Your task to perform on an android device: create a new album in the google photos Image 0: 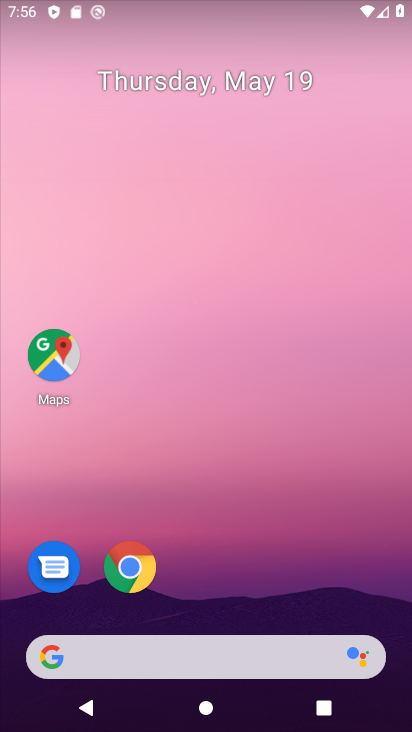
Step 0: drag from (226, 533) to (207, 141)
Your task to perform on an android device: create a new album in the google photos Image 1: 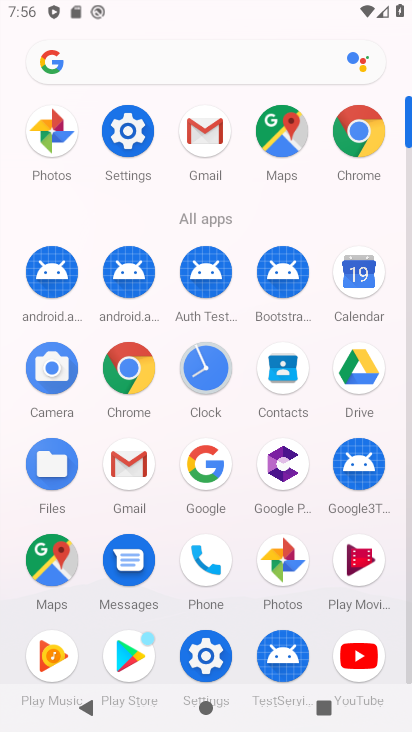
Step 1: click (59, 108)
Your task to perform on an android device: create a new album in the google photos Image 2: 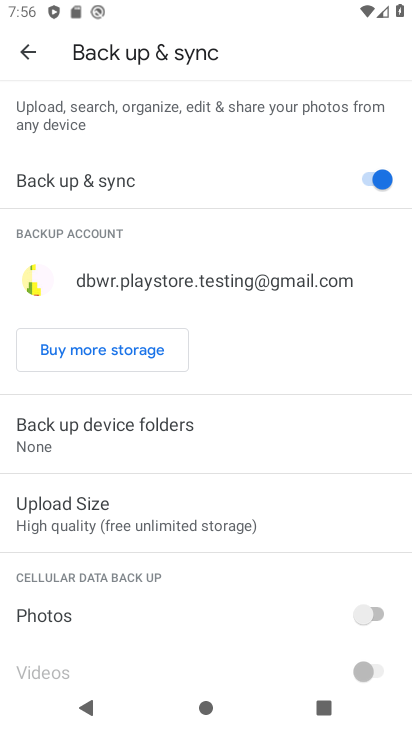
Step 2: click (34, 58)
Your task to perform on an android device: create a new album in the google photos Image 3: 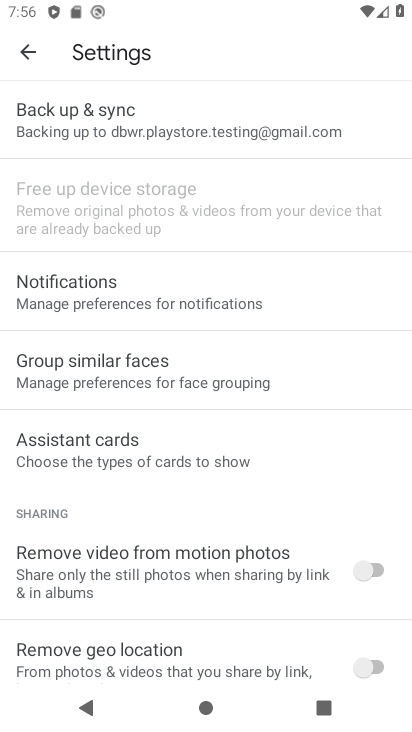
Step 3: click (34, 58)
Your task to perform on an android device: create a new album in the google photos Image 4: 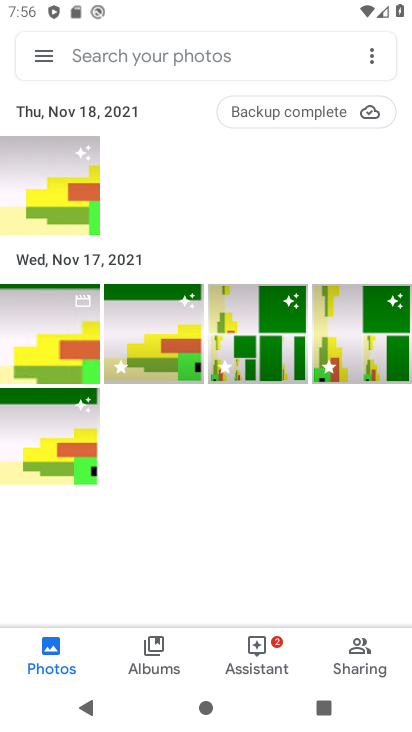
Step 4: click (27, 54)
Your task to perform on an android device: create a new album in the google photos Image 5: 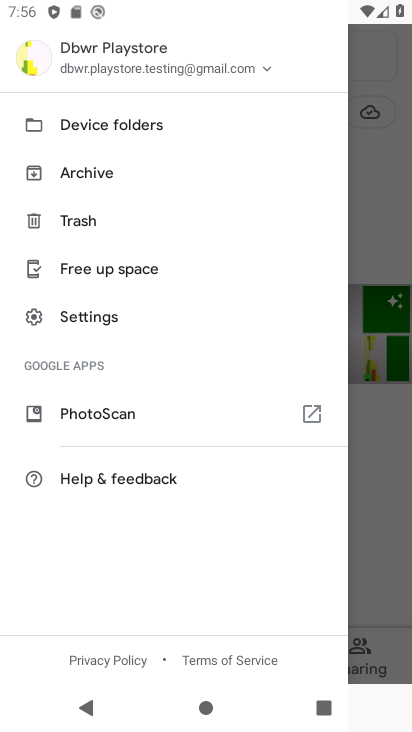
Step 5: click (387, 182)
Your task to perform on an android device: create a new album in the google photos Image 6: 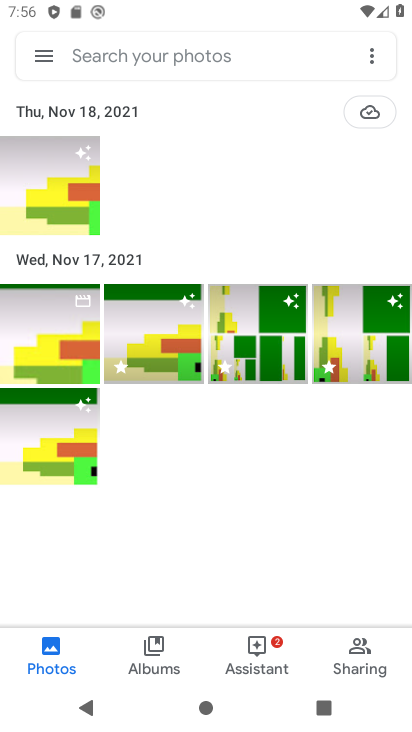
Step 6: click (387, 182)
Your task to perform on an android device: create a new album in the google photos Image 7: 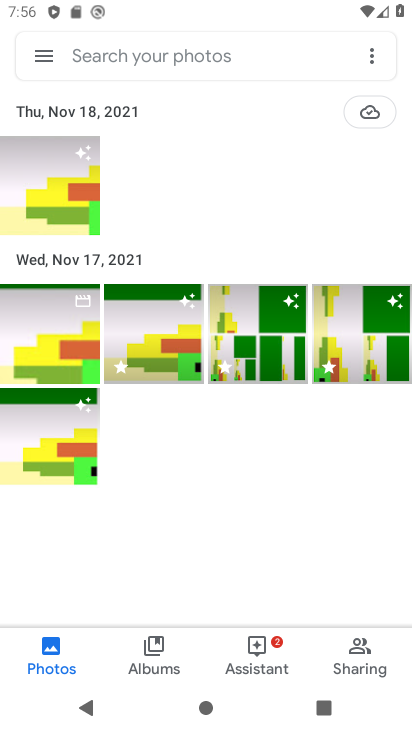
Step 7: click (19, 219)
Your task to perform on an android device: create a new album in the google photos Image 8: 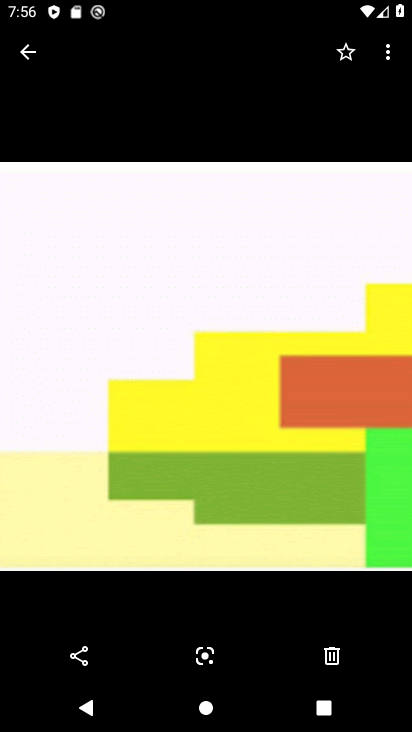
Step 8: click (57, 337)
Your task to perform on an android device: create a new album in the google photos Image 9: 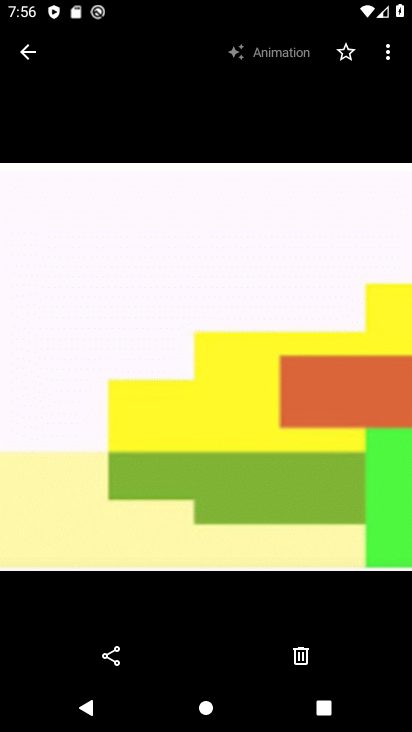
Step 9: click (392, 59)
Your task to perform on an android device: create a new album in the google photos Image 10: 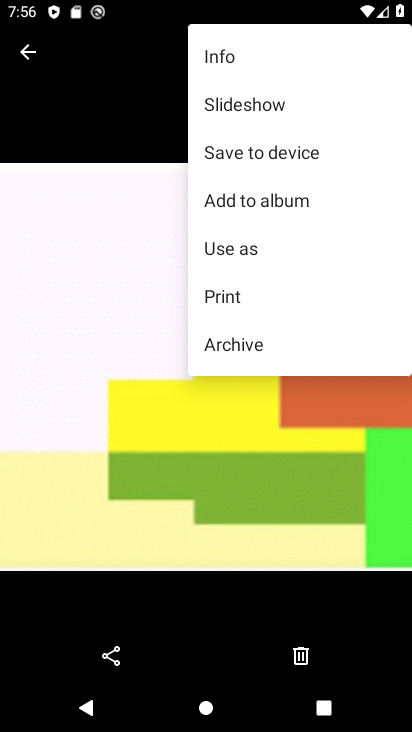
Step 10: click (270, 206)
Your task to perform on an android device: create a new album in the google photos Image 11: 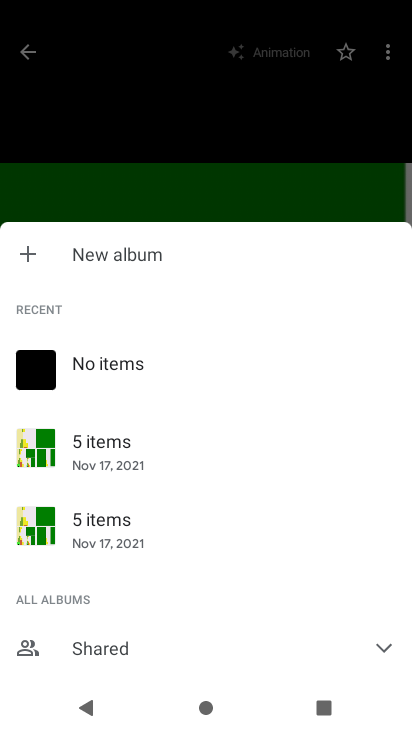
Step 11: click (147, 264)
Your task to perform on an android device: create a new album in the google photos Image 12: 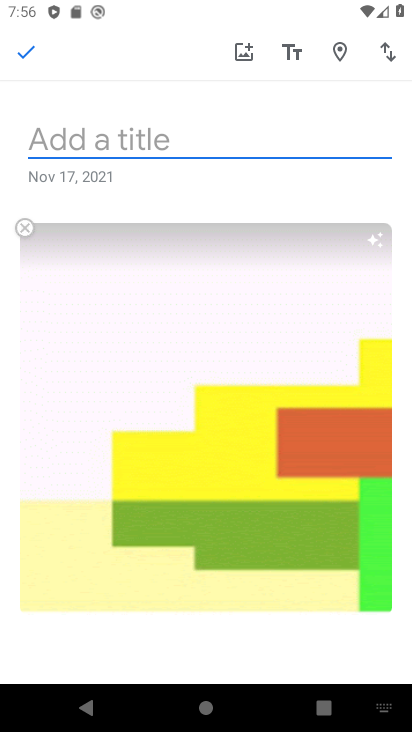
Step 12: click (147, 264)
Your task to perform on an android device: create a new album in the google photos Image 13: 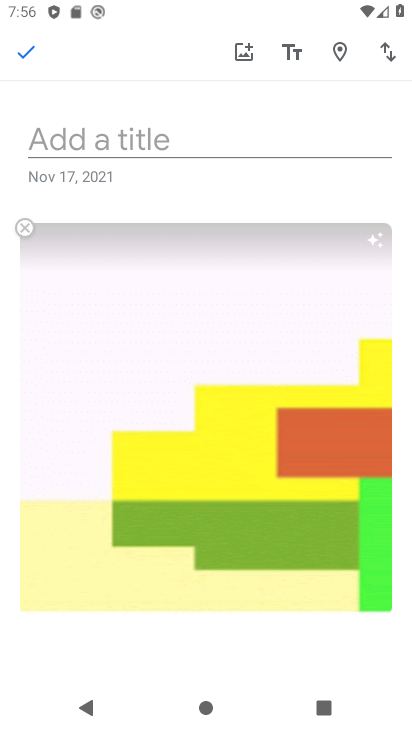
Step 13: type "ani"
Your task to perform on an android device: create a new album in the google photos Image 14: 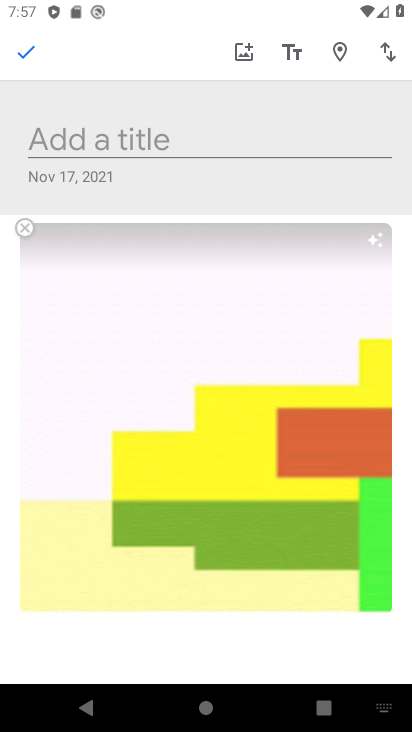
Step 14: type ""
Your task to perform on an android device: create a new album in the google photos Image 15: 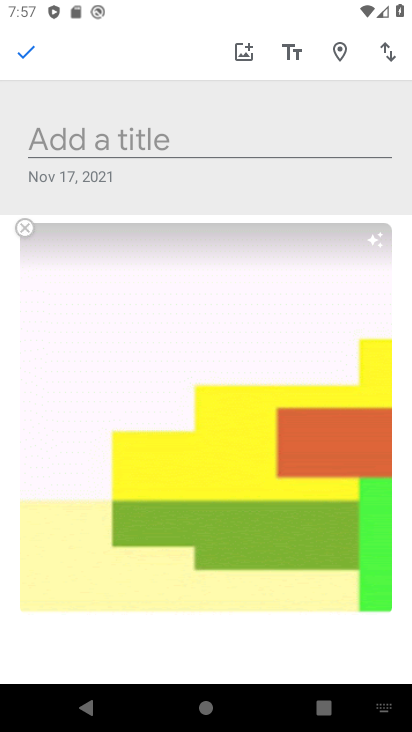
Step 15: click (91, 133)
Your task to perform on an android device: create a new album in the google photos Image 16: 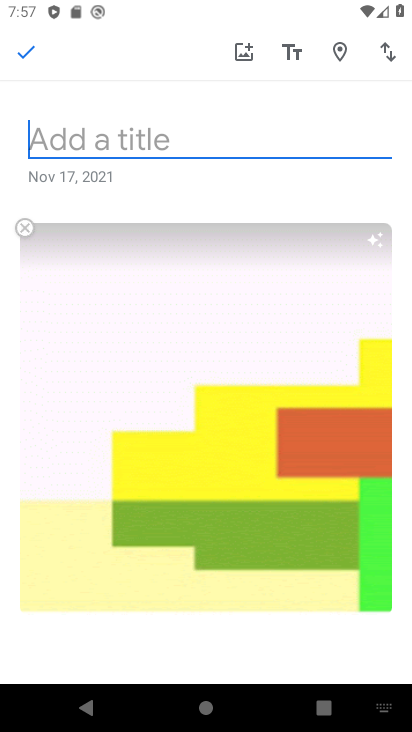
Step 16: type "bghj"
Your task to perform on an android device: create a new album in the google photos Image 17: 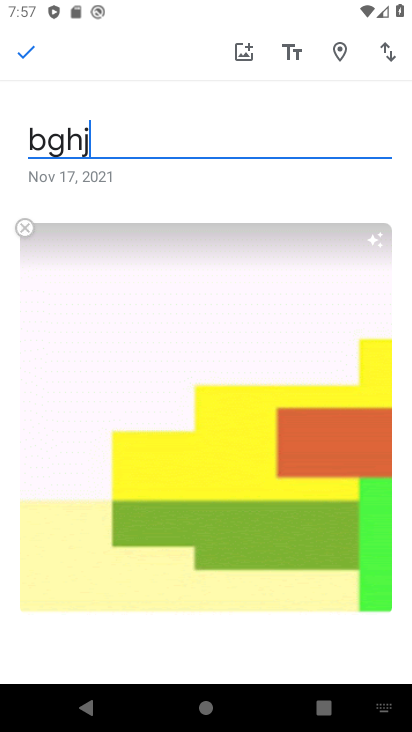
Step 17: type ""
Your task to perform on an android device: create a new album in the google photos Image 18: 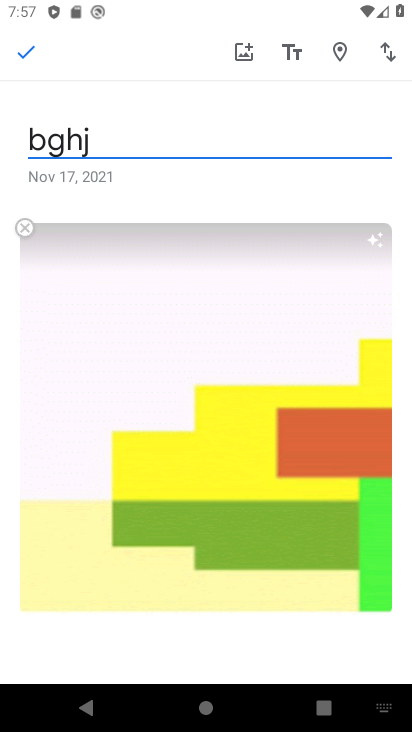
Step 18: click (22, 54)
Your task to perform on an android device: create a new album in the google photos Image 19: 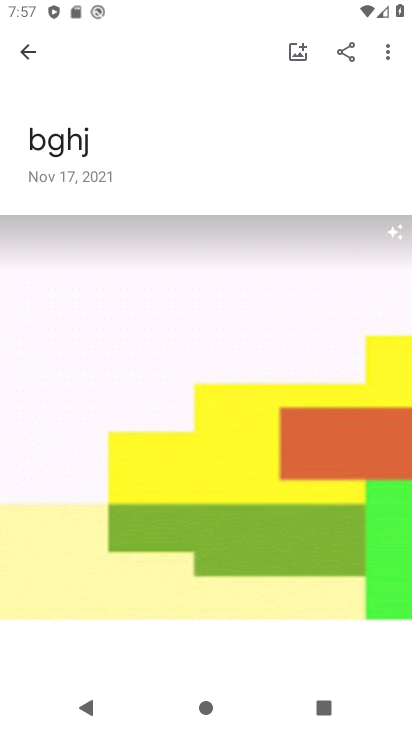
Step 19: task complete